Your task to perform on an android device: toggle translation in the chrome app Image 0: 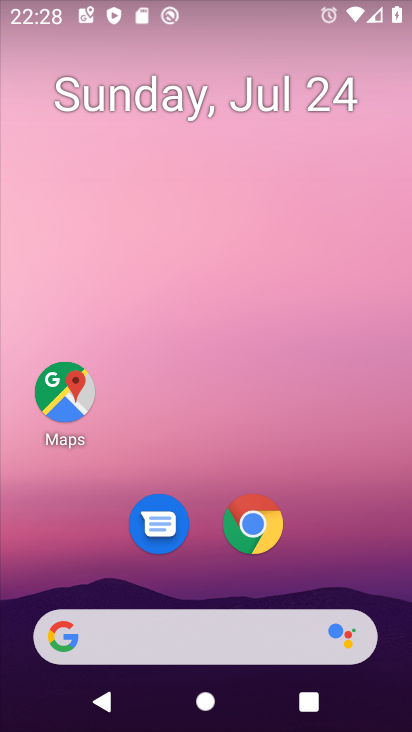
Step 0: press home button
Your task to perform on an android device: toggle translation in the chrome app Image 1: 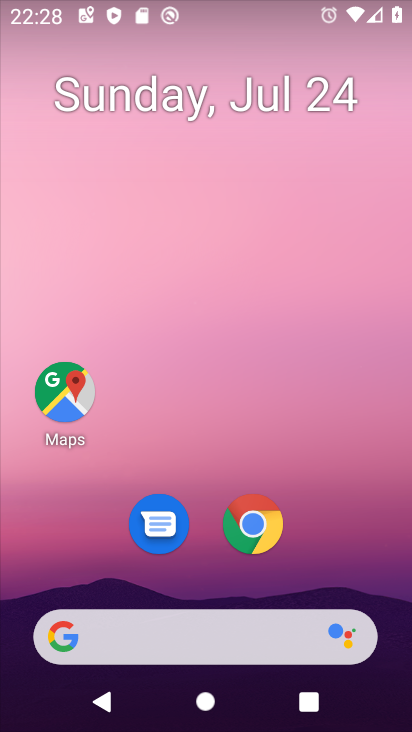
Step 1: click (244, 530)
Your task to perform on an android device: toggle translation in the chrome app Image 2: 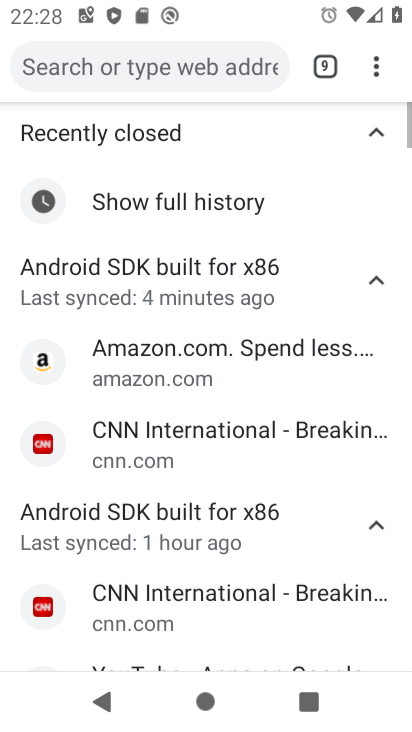
Step 2: drag from (369, 67) to (226, 548)
Your task to perform on an android device: toggle translation in the chrome app Image 3: 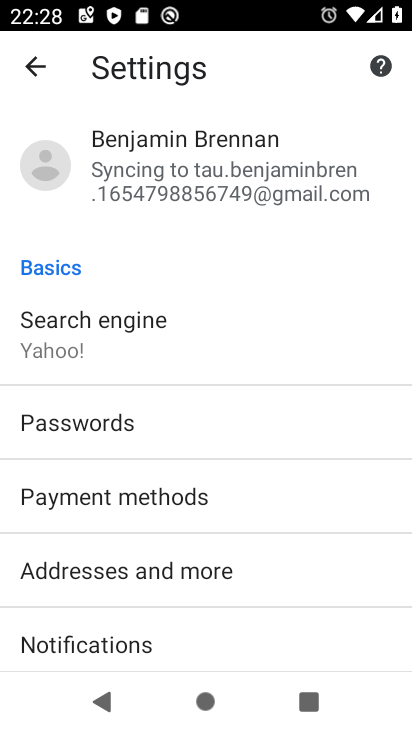
Step 3: drag from (230, 651) to (250, 283)
Your task to perform on an android device: toggle translation in the chrome app Image 4: 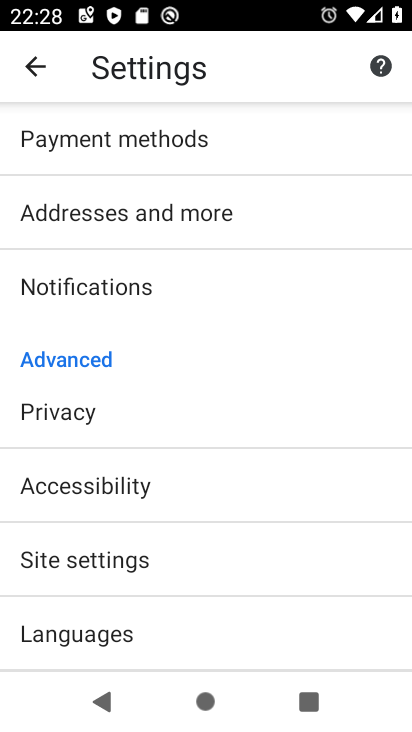
Step 4: click (146, 635)
Your task to perform on an android device: toggle translation in the chrome app Image 5: 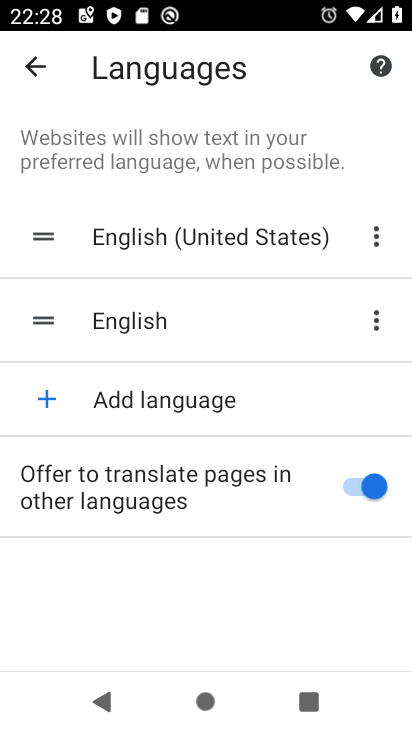
Step 5: click (354, 484)
Your task to perform on an android device: toggle translation in the chrome app Image 6: 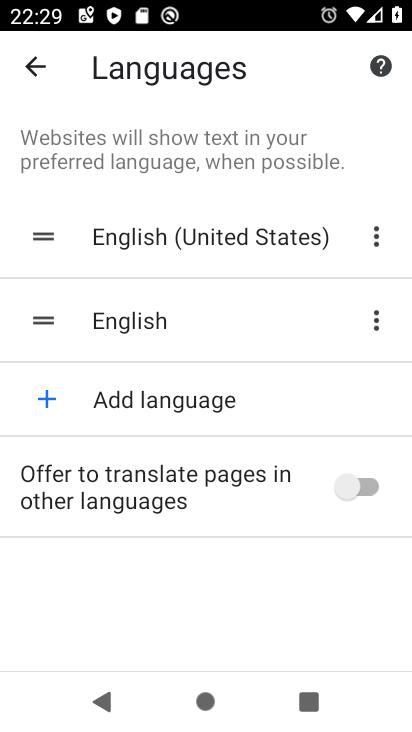
Step 6: click (363, 484)
Your task to perform on an android device: toggle translation in the chrome app Image 7: 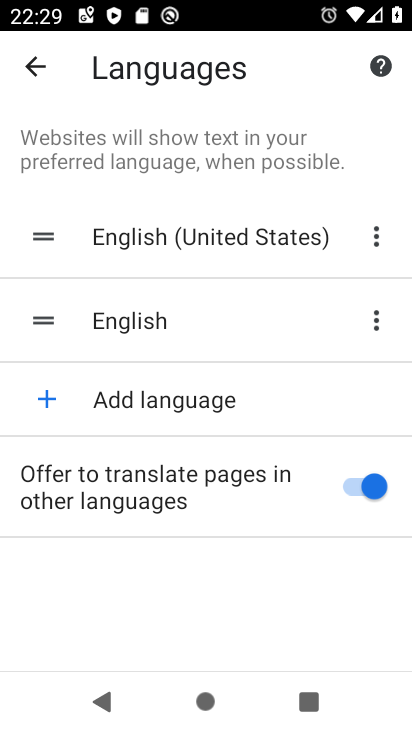
Step 7: task complete